Your task to perform on an android device: change the clock display to analog Image 0: 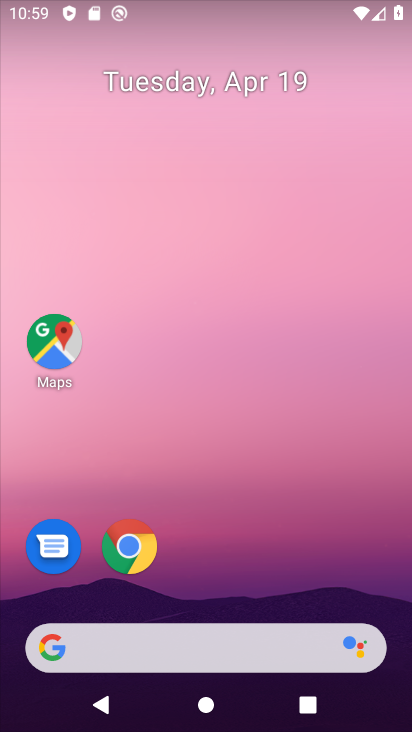
Step 0: drag from (375, 550) to (200, 1)
Your task to perform on an android device: change the clock display to analog Image 1: 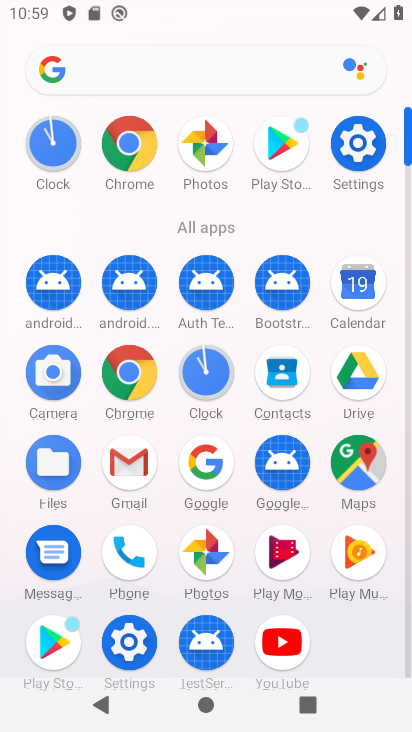
Step 1: drag from (10, 495) to (13, 292)
Your task to perform on an android device: change the clock display to analog Image 2: 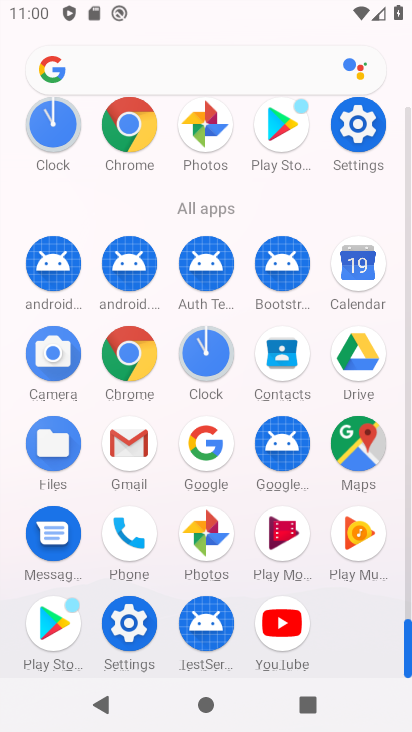
Step 2: click (204, 350)
Your task to perform on an android device: change the clock display to analog Image 3: 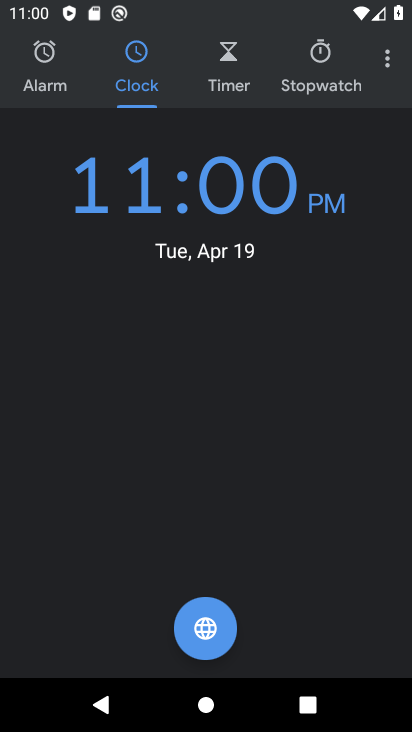
Step 3: click (390, 59)
Your task to perform on an android device: change the clock display to analog Image 4: 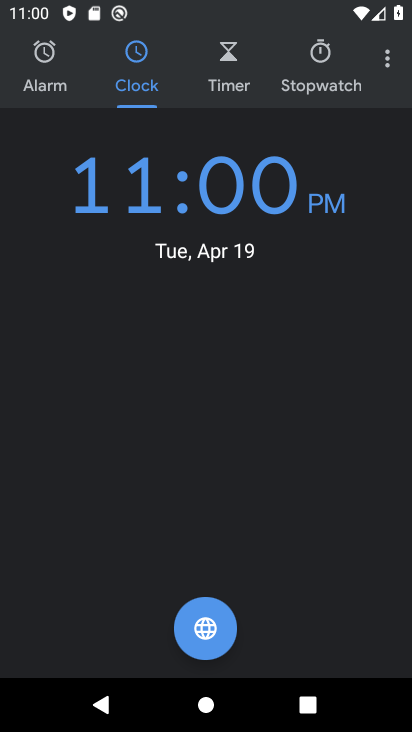
Step 4: click (390, 59)
Your task to perform on an android device: change the clock display to analog Image 5: 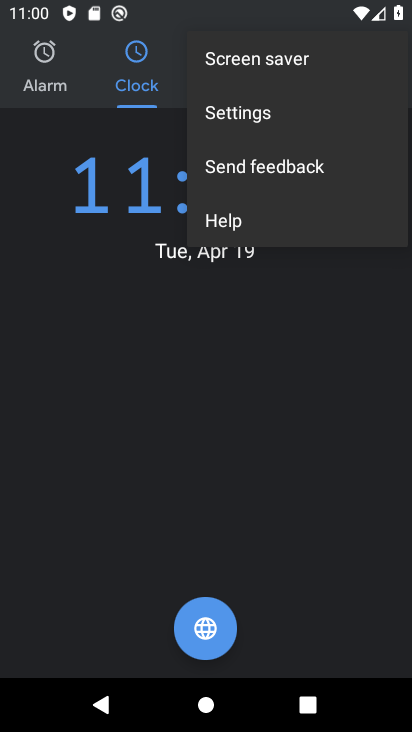
Step 5: click (270, 116)
Your task to perform on an android device: change the clock display to analog Image 6: 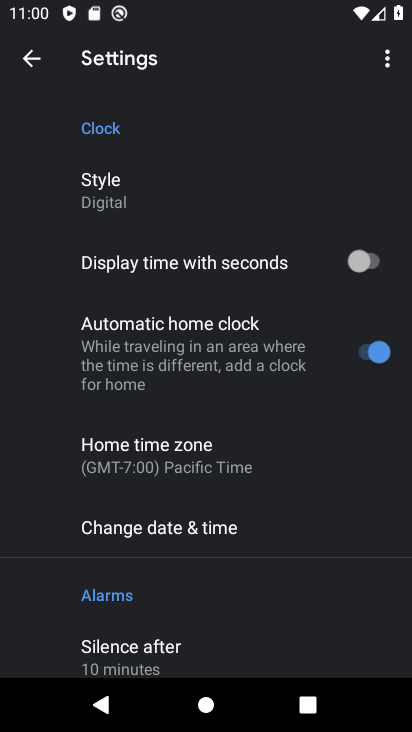
Step 6: click (192, 178)
Your task to perform on an android device: change the clock display to analog Image 7: 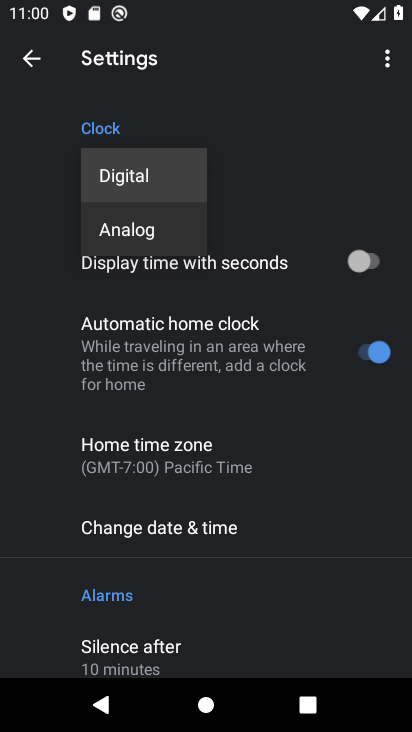
Step 7: click (172, 227)
Your task to perform on an android device: change the clock display to analog Image 8: 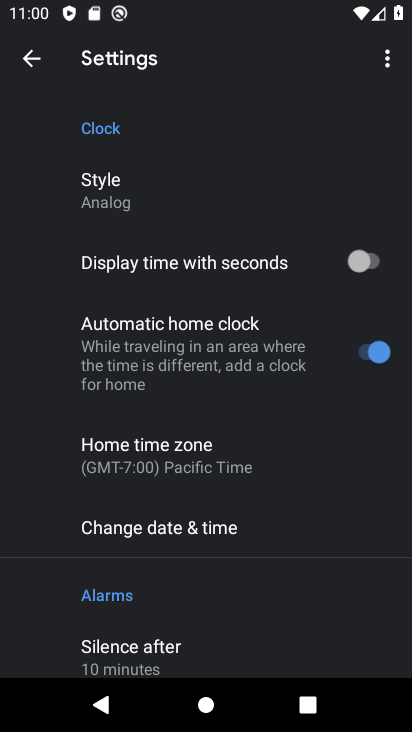
Step 8: task complete